Your task to perform on an android device: Check the news Image 0: 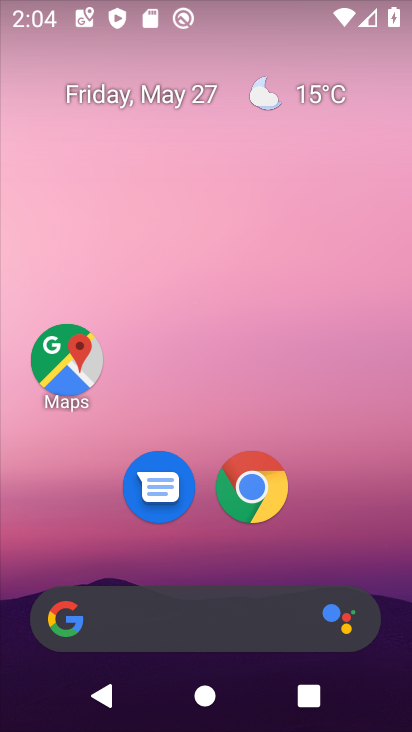
Step 0: click (177, 620)
Your task to perform on an android device: Check the news Image 1: 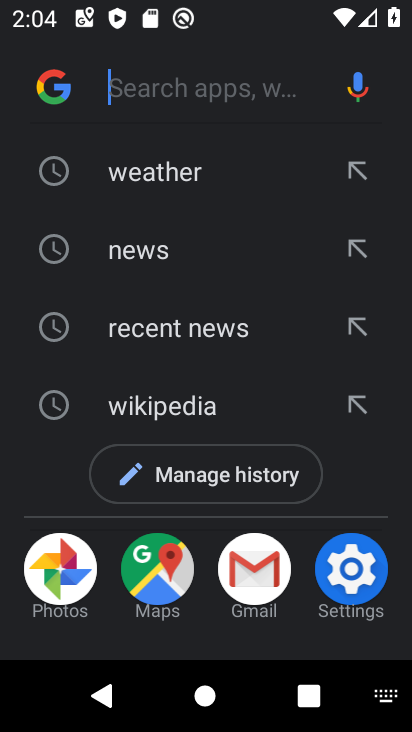
Step 1: click (119, 265)
Your task to perform on an android device: Check the news Image 2: 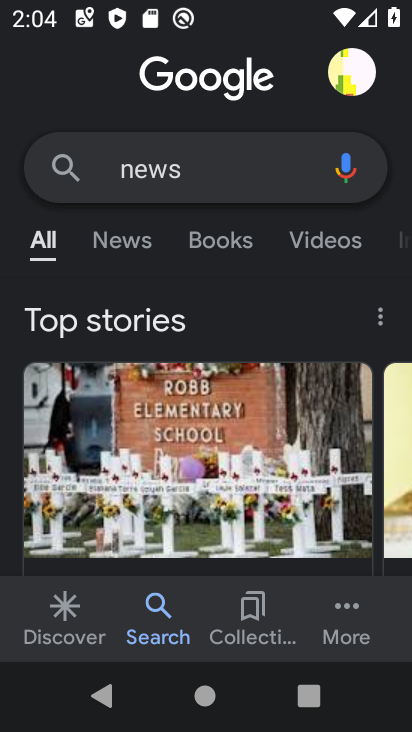
Step 2: task complete